Your task to perform on an android device: empty trash in google photos Image 0: 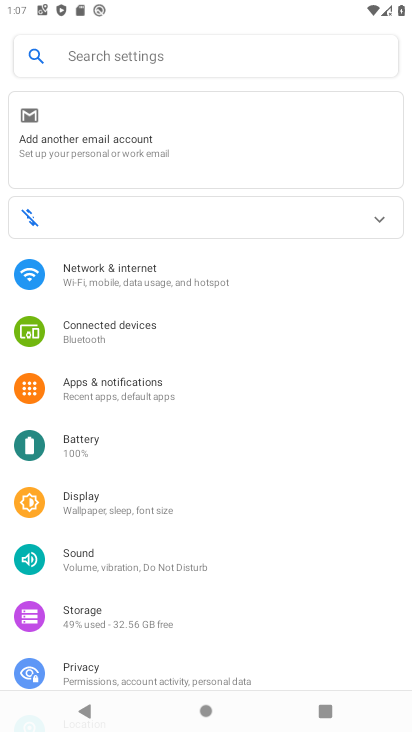
Step 0: press home button
Your task to perform on an android device: empty trash in google photos Image 1: 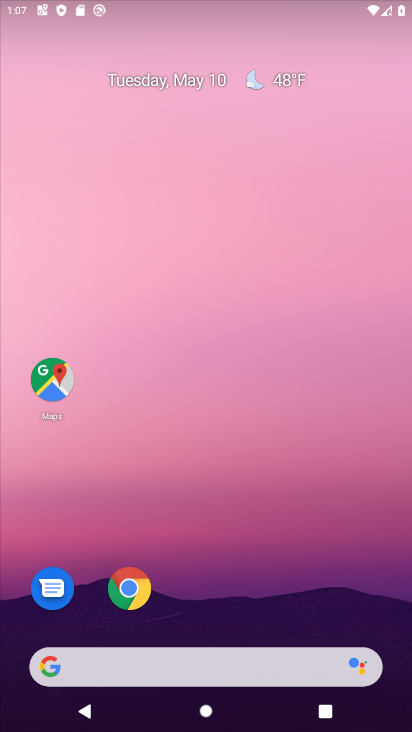
Step 1: drag from (249, 590) to (297, 112)
Your task to perform on an android device: empty trash in google photos Image 2: 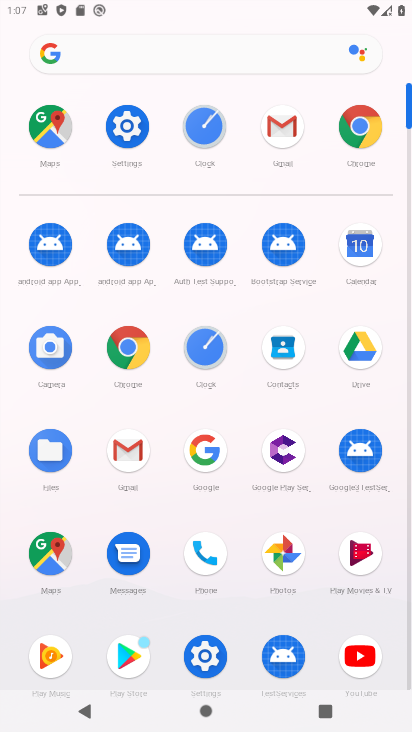
Step 2: click (276, 543)
Your task to perform on an android device: empty trash in google photos Image 3: 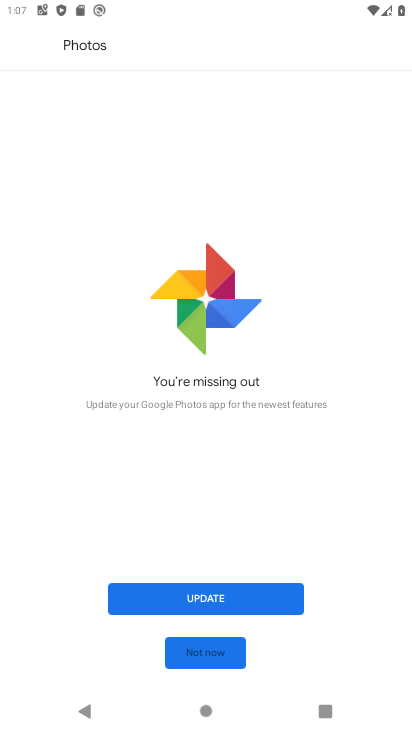
Step 3: click (37, 50)
Your task to perform on an android device: empty trash in google photos Image 4: 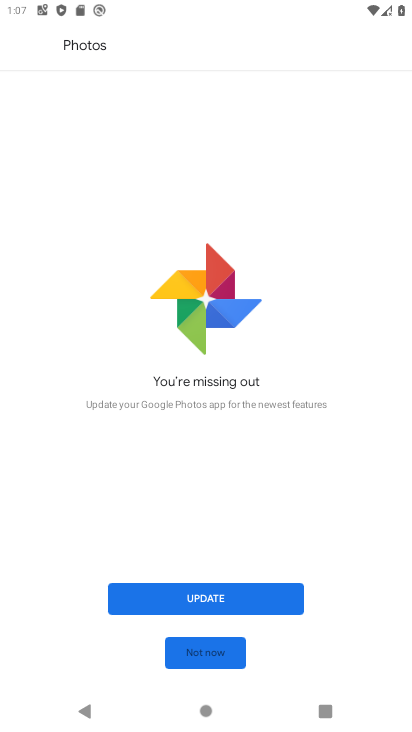
Step 4: click (211, 648)
Your task to perform on an android device: empty trash in google photos Image 5: 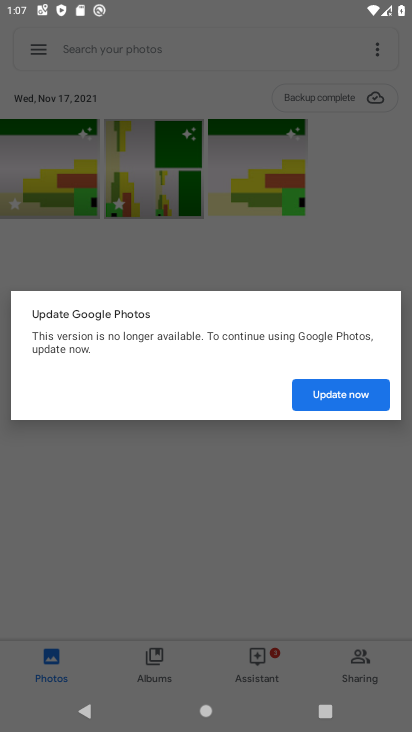
Step 5: click (333, 386)
Your task to perform on an android device: empty trash in google photos Image 6: 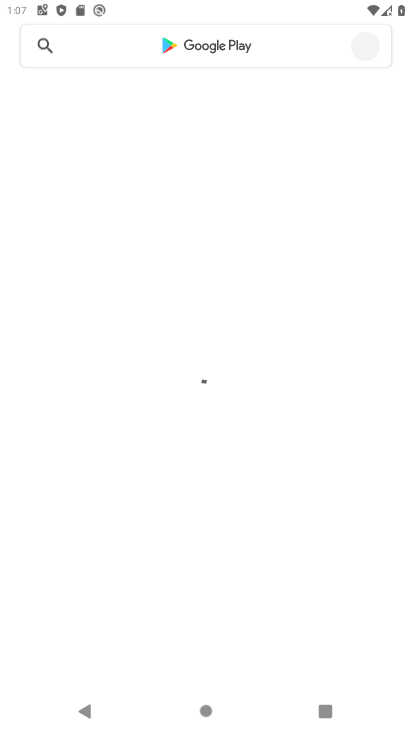
Step 6: press back button
Your task to perform on an android device: empty trash in google photos Image 7: 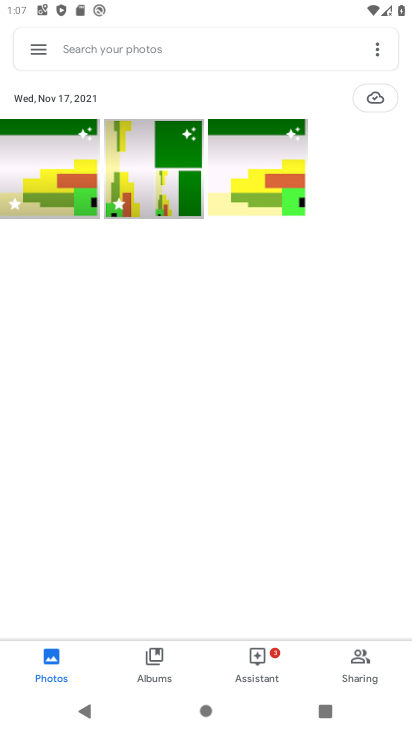
Step 7: click (32, 52)
Your task to perform on an android device: empty trash in google photos Image 8: 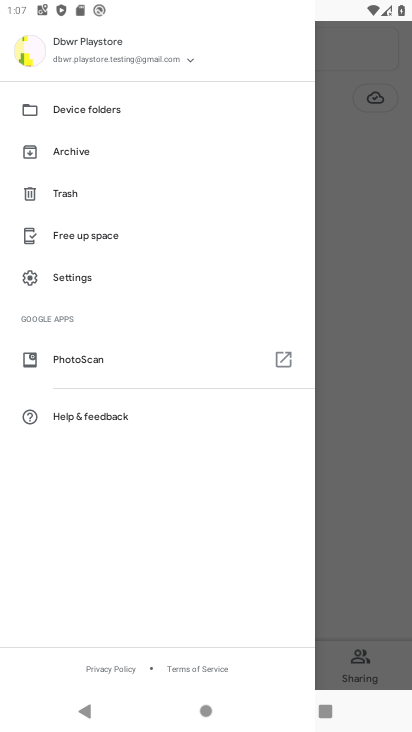
Step 8: click (66, 185)
Your task to perform on an android device: empty trash in google photos Image 9: 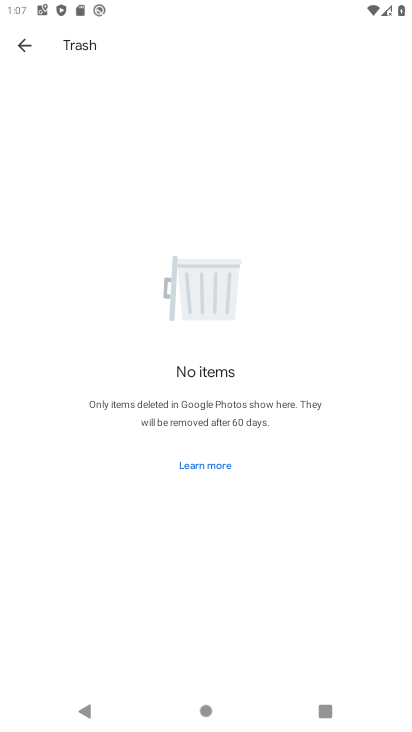
Step 9: task complete